Your task to perform on an android device: Do I have any events this weekend? Image 0: 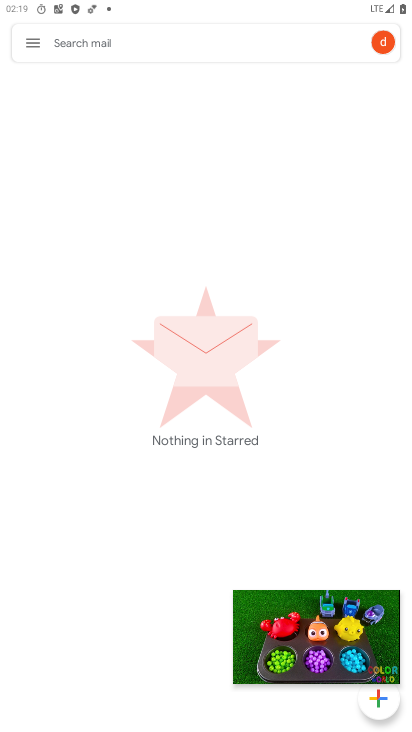
Step 0: click (386, 607)
Your task to perform on an android device: Do I have any events this weekend? Image 1: 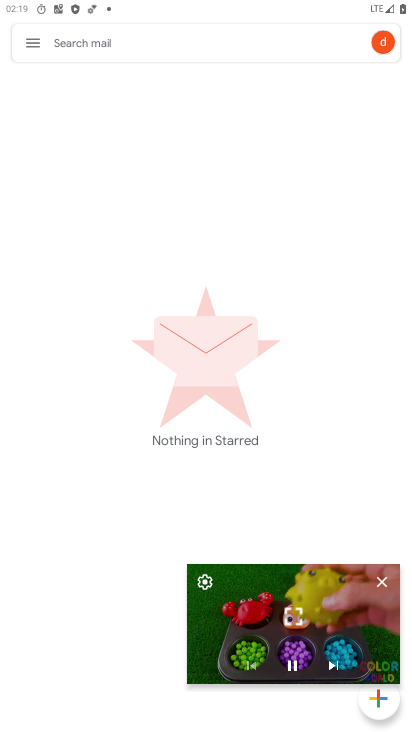
Step 1: click (382, 582)
Your task to perform on an android device: Do I have any events this weekend? Image 2: 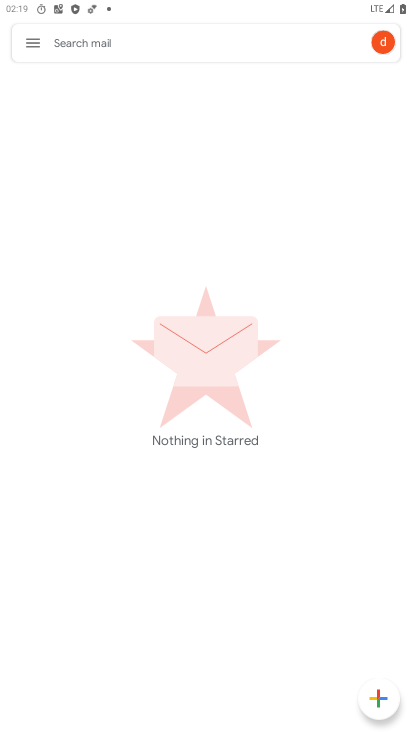
Step 2: press home button
Your task to perform on an android device: Do I have any events this weekend? Image 3: 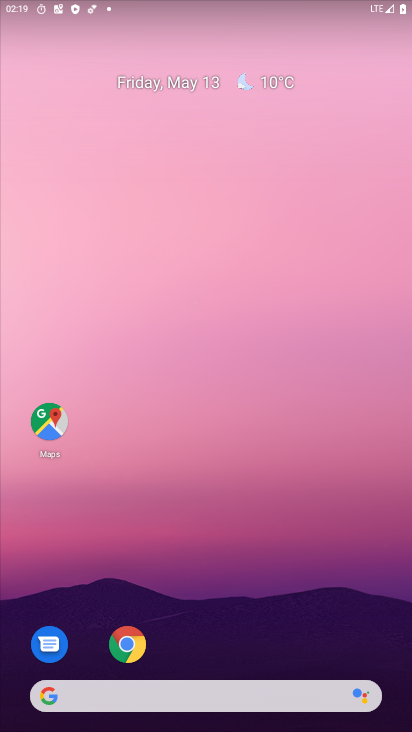
Step 3: drag from (249, 706) to (405, 420)
Your task to perform on an android device: Do I have any events this weekend? Image 4: 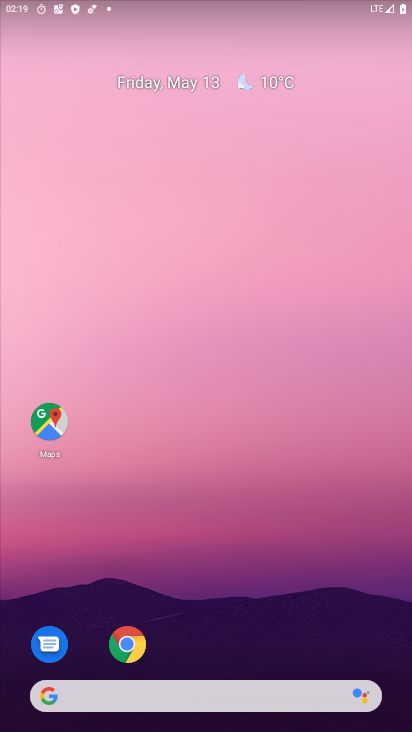
Step 4: drag from (264, 617) to (299, 60)
Your task to perform on an android device: Do I have any events this weekend? Image 5: 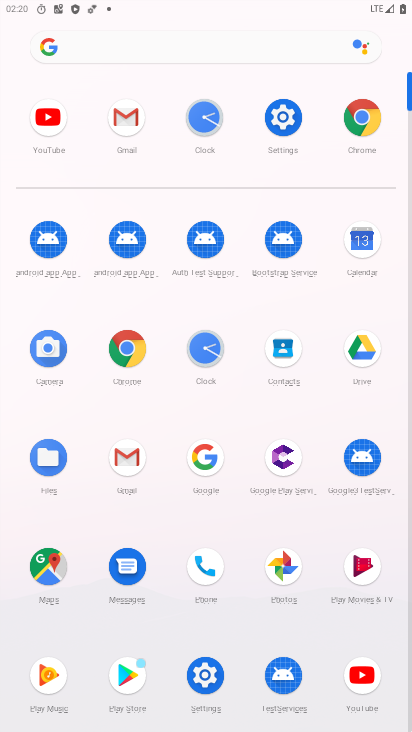
Step 5: click (365, 240)
Your task to perform on an android device: Do I have any events this weekend? Image 6: 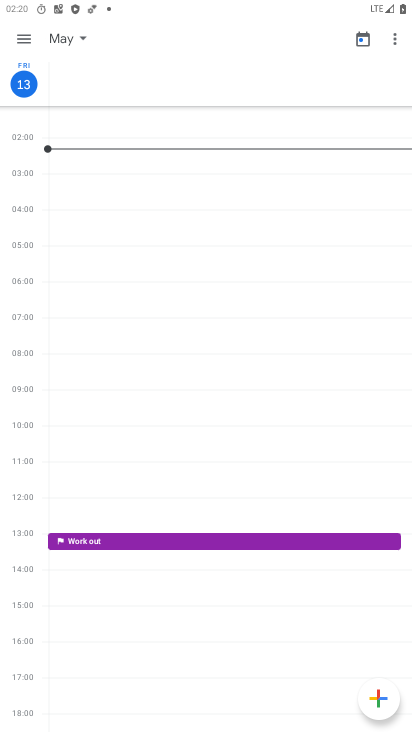
Step 6: click (71, 36)
Your task to perform on an android device: Do I have any events this weekend? Image 7: 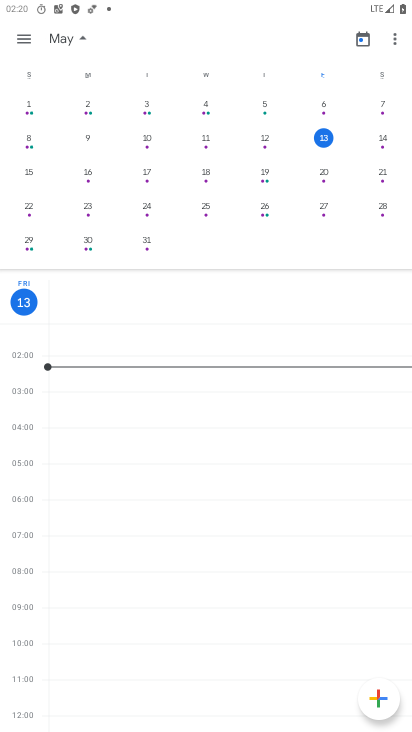
Step 7: click (381, 139)
Your task to perform on an android device: Do I have any events this weekend? Image 8: 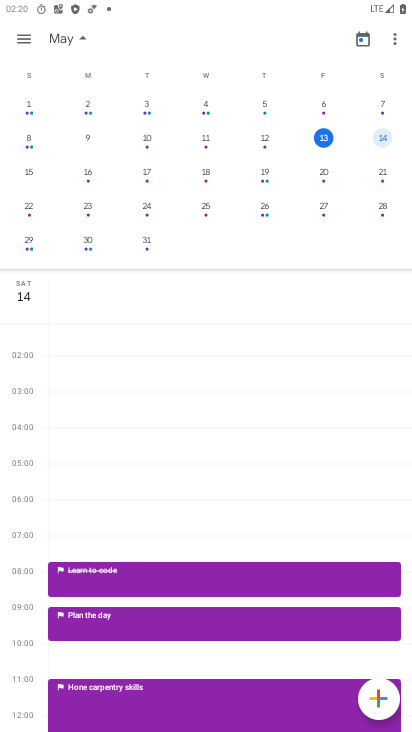
Step 8: task complete